Your task to perform on an android device: turn on the 12-hour format for clock Image 0: 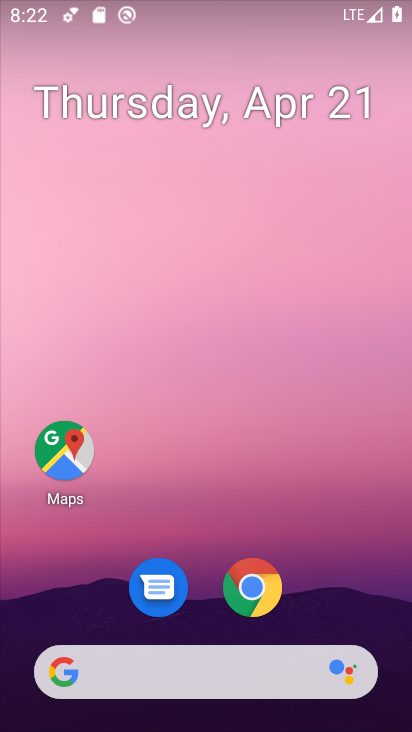
Step 0: drag from (390, 659) to (370, 189)
Your task to perform on an android device: turn on the 12-hour format for clock Image 1: 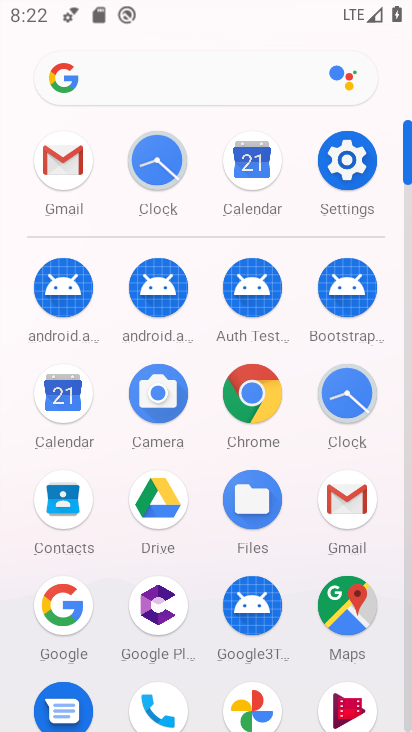
Step 1: click (351, 382)
Your task to perform on an android device: turn on the 12-hour format for clock Image 2: 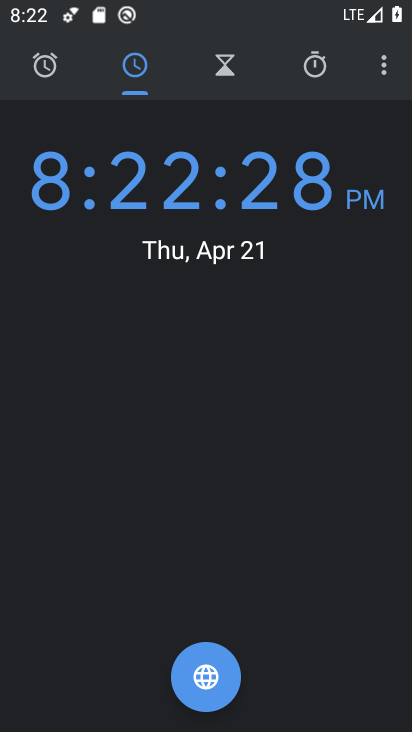
Step 2: click (383, 63)
Your task to perform on an android device: turn on the 12-hour format for clock Image 3: 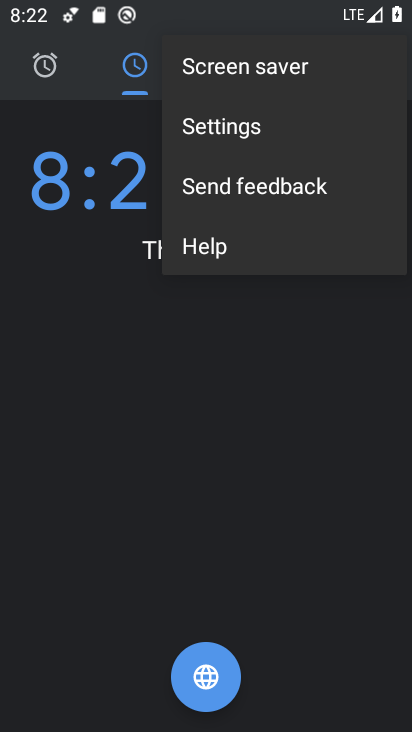
Step 3: click (196, 125)
Your task to perform on an android device: turn on the 12-hour format for clock Image 4: 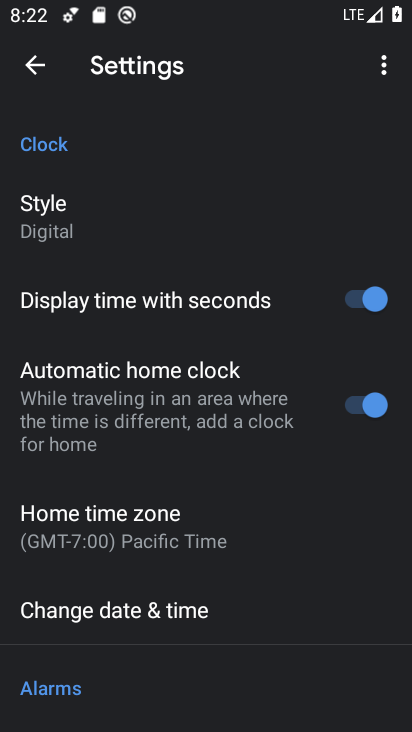
Step 4: click (104, 611)
Your task to perform on an android device: turn on the 12-hour format for clock Image 5: 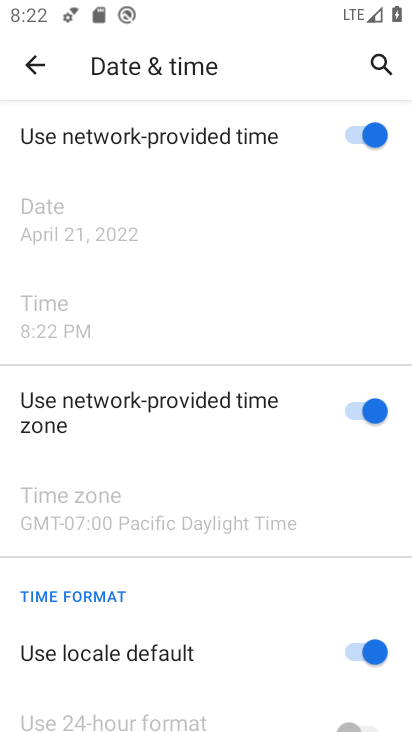
Step 5: task complete